Your task to perform on an android device: Show me popular games on the Play Store Image 0: 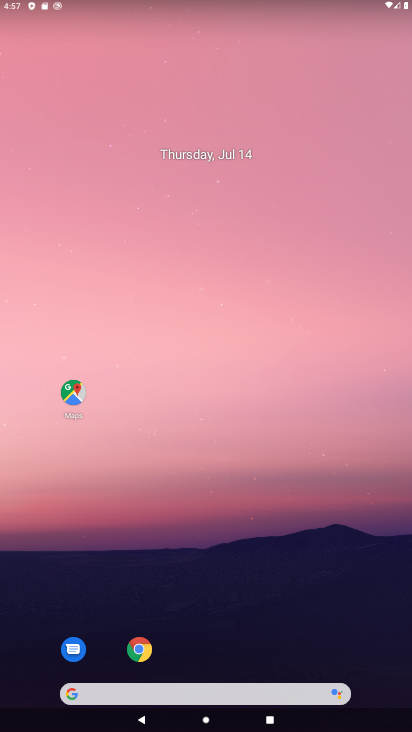
Step 0: drag from (232, 613) to (288, 127)
Your task to perform on an android device: Show me popular games on the Play Store Image 1: 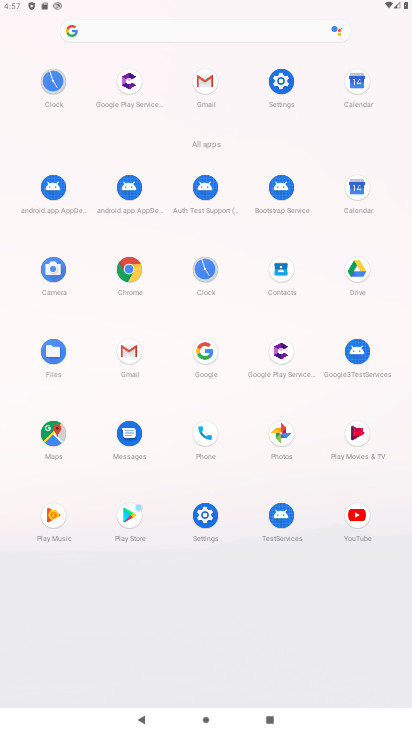
Step 1: click (123, 524)
Your task to perform on an android device: Show me popular games on the Play Store Image 2: 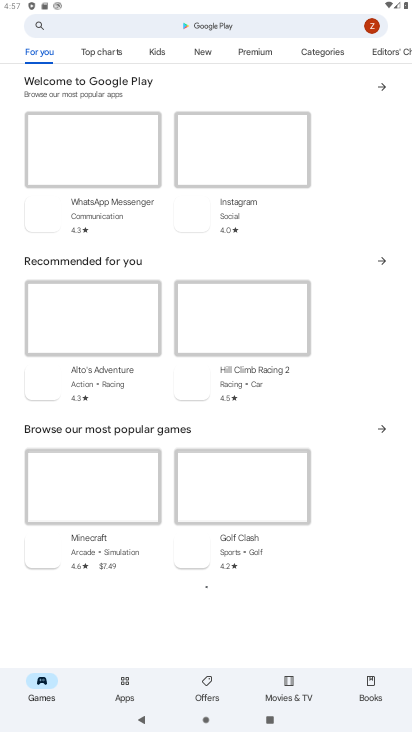
Step 2: click (49, 682)
Your task to perform on an android device: Show me popular games on the Play Store Image 3: 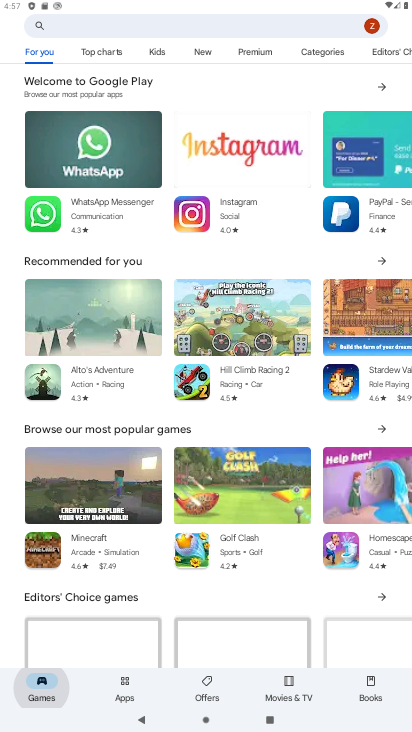
Step 3: click (379, 426)
Your task to perform on an android device: Show me popular games on the Play Store Image 4: 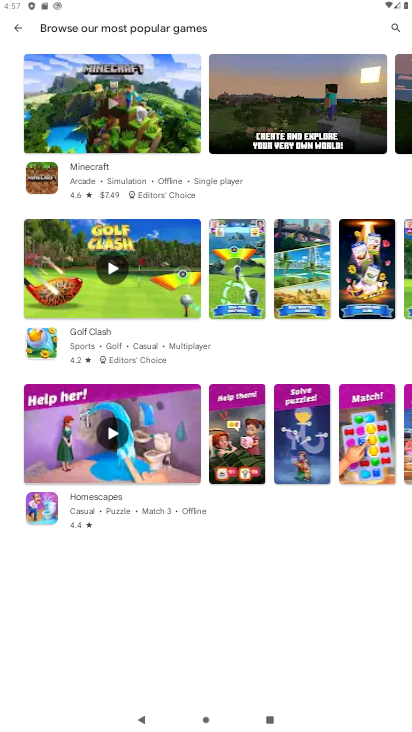
Step 4: task complete